Your task to perform on an android device: check storage Image 0: 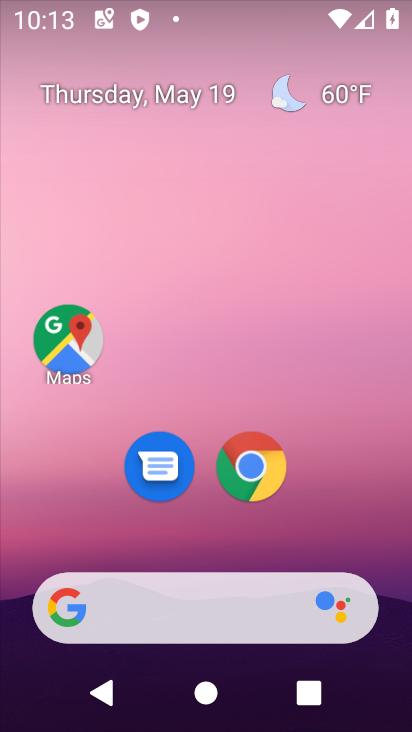
Step 0: drag from (322, 481) to (322, 209)
Your task to perform on an android device: check storage Image 1: 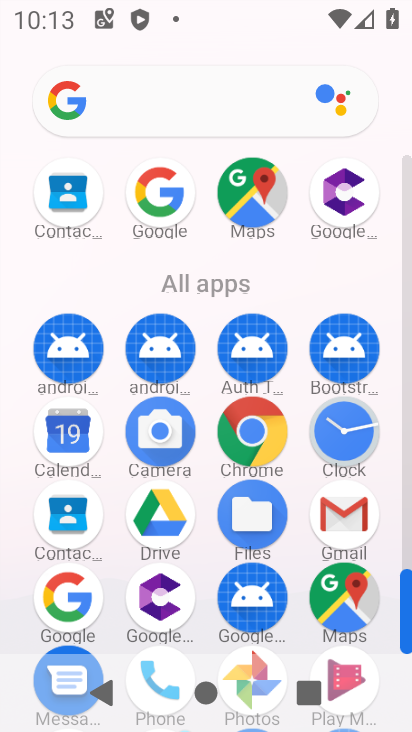
Step 1: drag from (206, 576) to (192, 251)
Your task to perform on an android device: check storage Image 2: 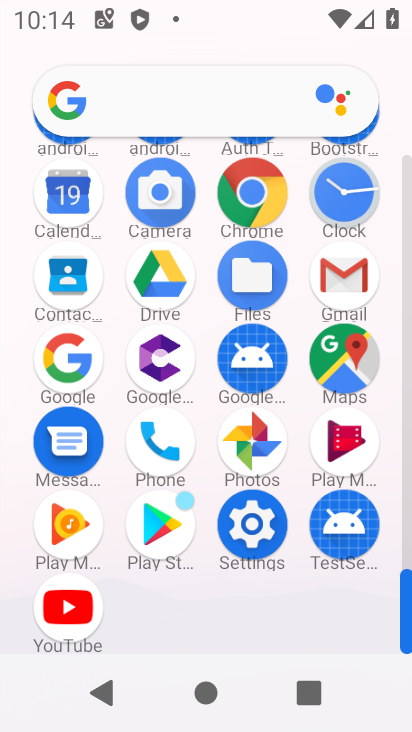
Step 2: click (229, 554)
Your task to perform on an android device: check storage Image 3: 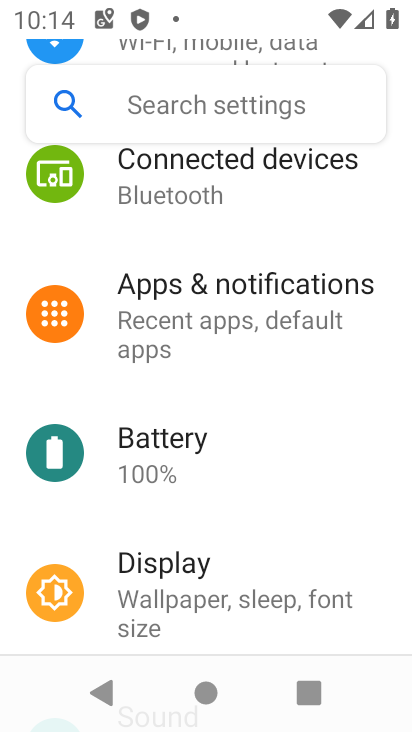
Step 3: drag from (205, 582) to (216, 275)
Your task to perform on an android device: check storage Image 4: 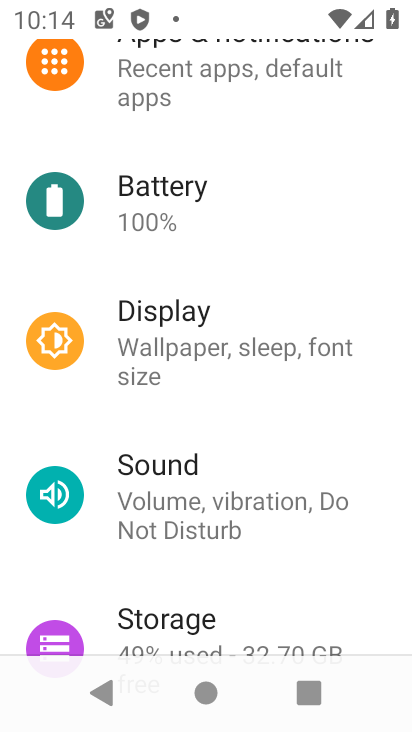
Step 4: click (164, 625)
Your task to perform on an android device: check storage Image 5: 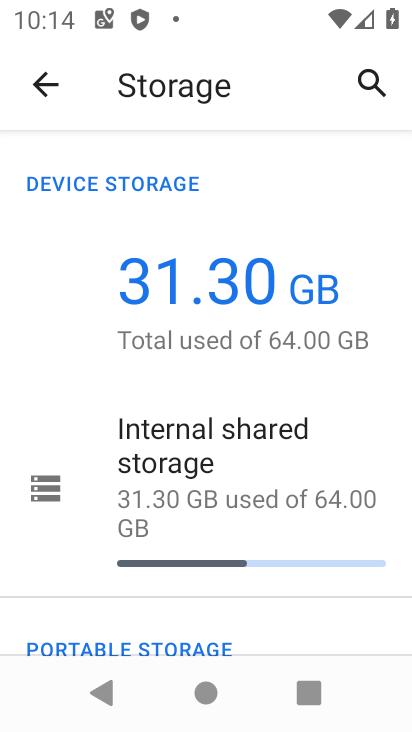
Step 5: task complete